Your task to perform on an android device: turn off notifications in google photos Image 0: 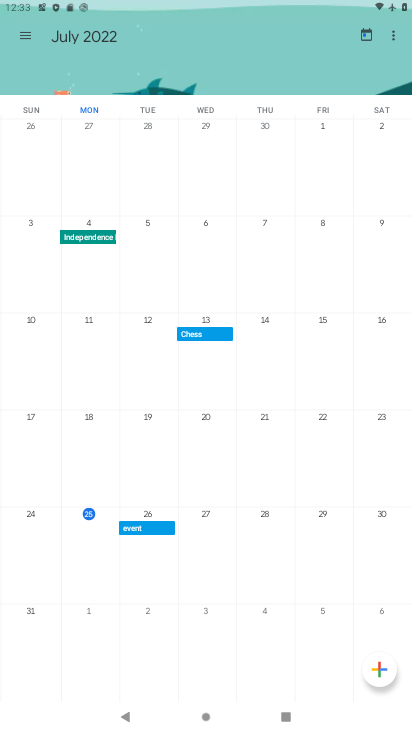
Step 0: task complete